Your task to perform on an android device: change text size in settings app Image 0: 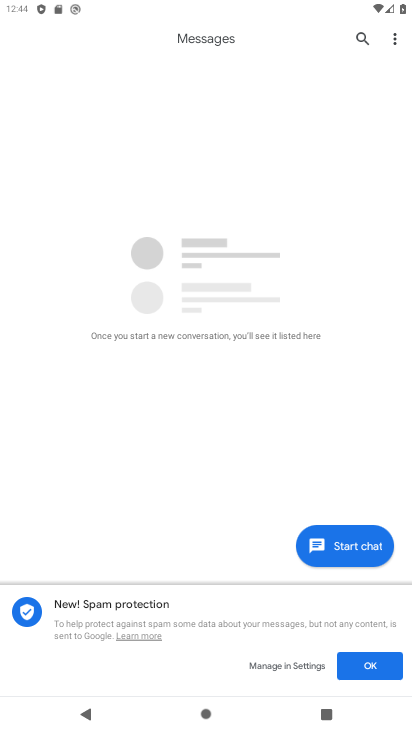
Step 0: press home button
Your task to perform on an android device: change text size in settings app Image 1: 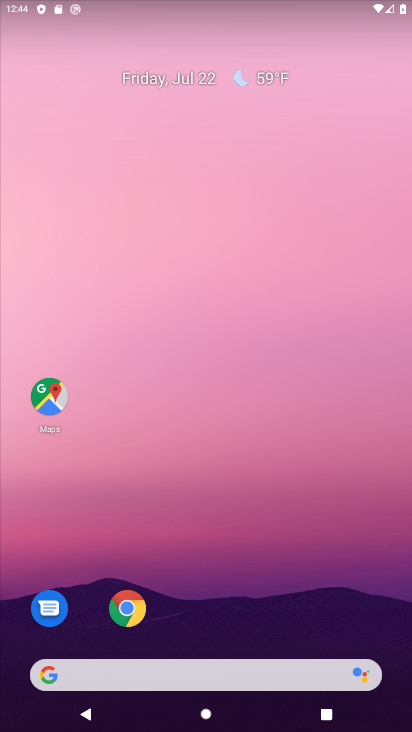
Step 1: drag from (175, 595) to (278, 15)
Your task to perform on an android device: change text size in settings app Image 2: 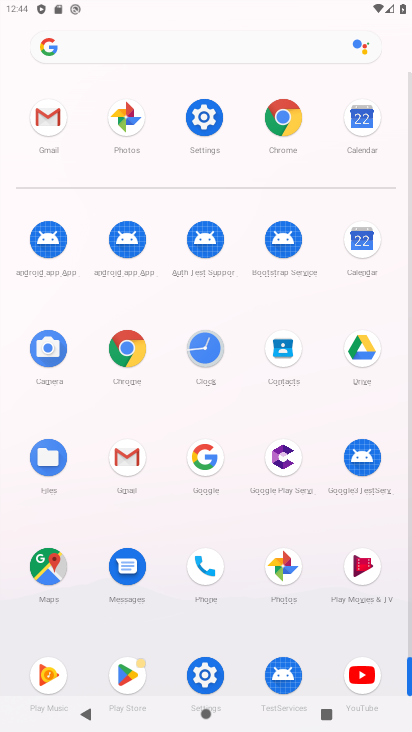
Step 2: click (208, 670)
Your task to perform on an android device: change text size in settings app Image 3: 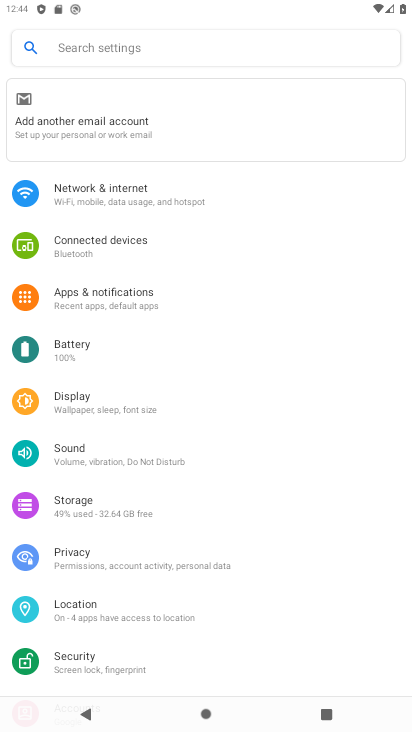
Step 3: click (102, 417)
Your task to perform on an android device: change text size in settings app Image 4: 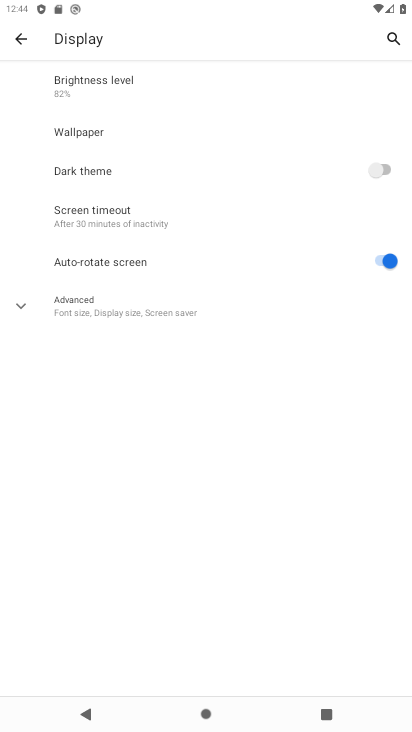
Step 4: click (79, 299)
Your task to perform on an android device: change text size in settings app Image 5: 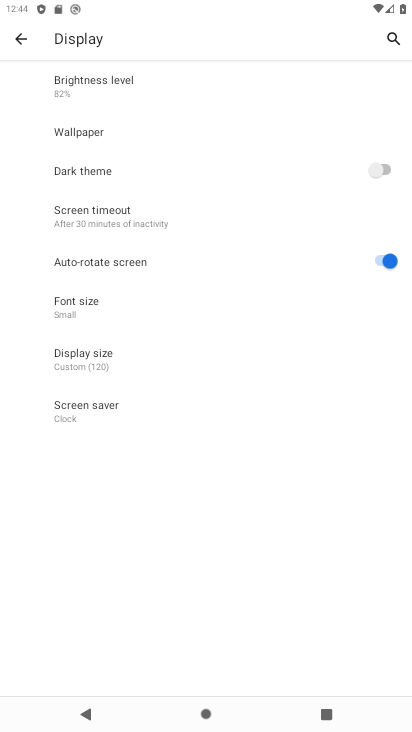
Step 5: click (76, 310)
Your task to perform on an android device: change text size in settings app Image 6: 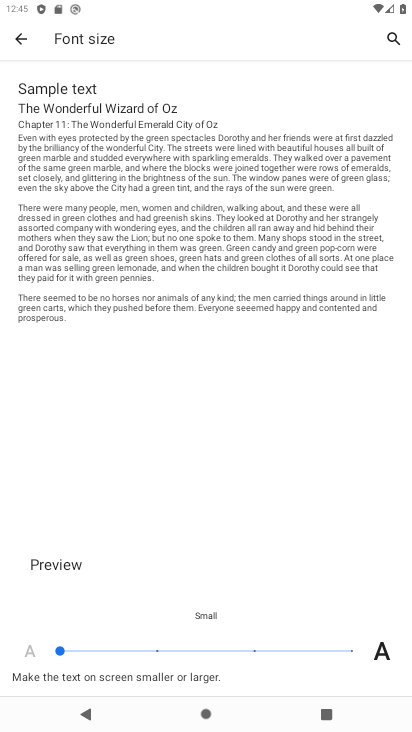
Step 6: click (257, 647)
Your task to perform on an android device: change text size in settings app Image 7: 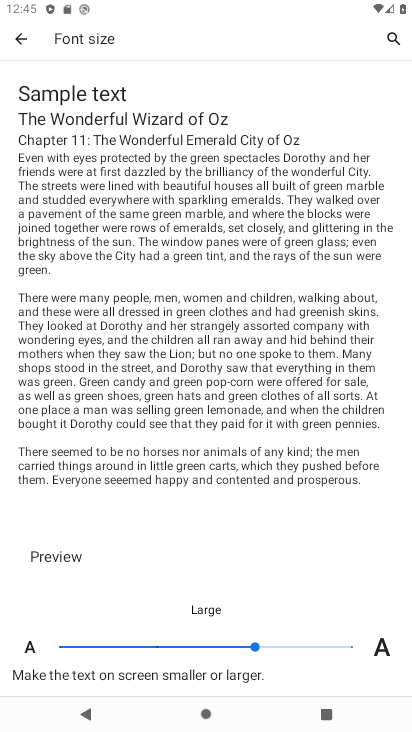
Step 7: task complete